Your task to perform on an android device: Open the stopwatch Image 0: 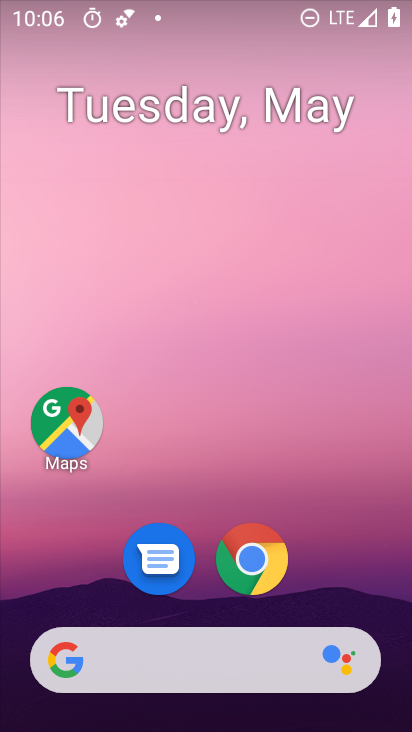
Step 0: drag from (390, 629) to (304, 76)
Your task to perform on an android device: Open the stopwatch Image 1: 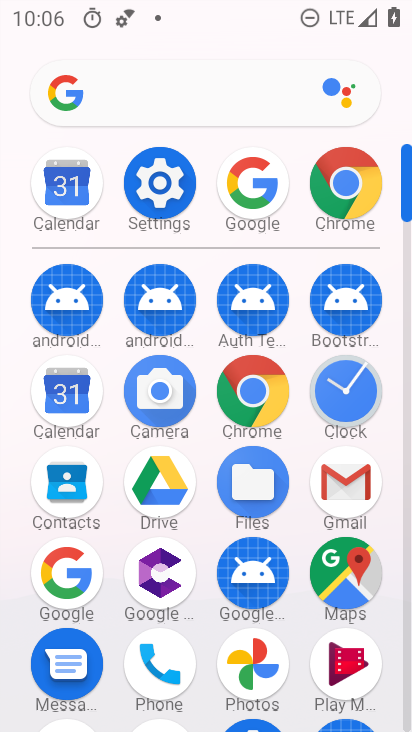
Step 1: click (313, 82)
Your task to perform on an android device: Open the stopwatch Image 2: 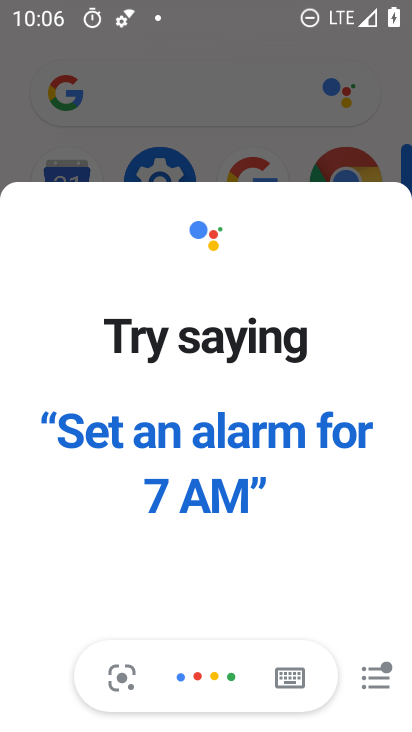
Step 2: press home button
Your task to perform on an android device: Open the stopwatch Image 3: 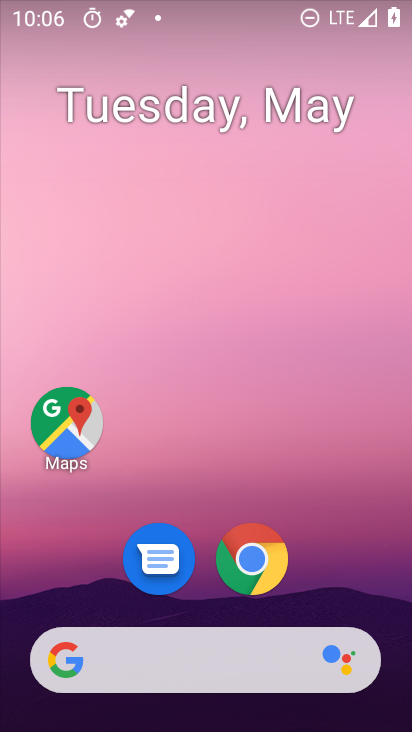
Step 3: drag from (397, 659) to (284, 134)
Your task to perform on an android device: Open the stopwatch Image 4: 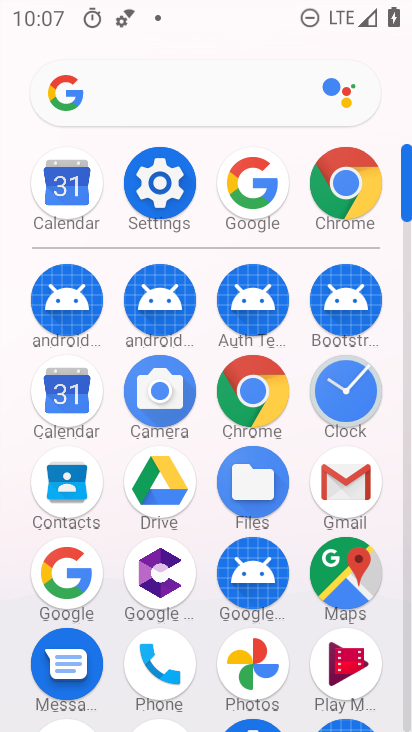
Step 4: click (333, 395)
Your task to perform on an android device: Open the stopwatch Image 5: 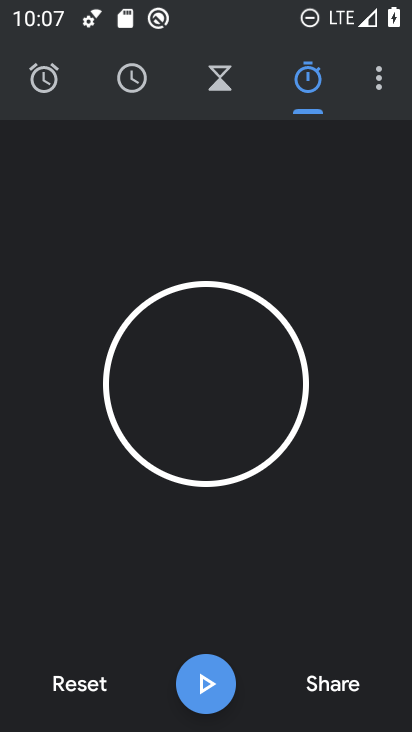
Step 5: task complete